Your task to perform on an android device: turn pop-ups on in chrome Image 0: 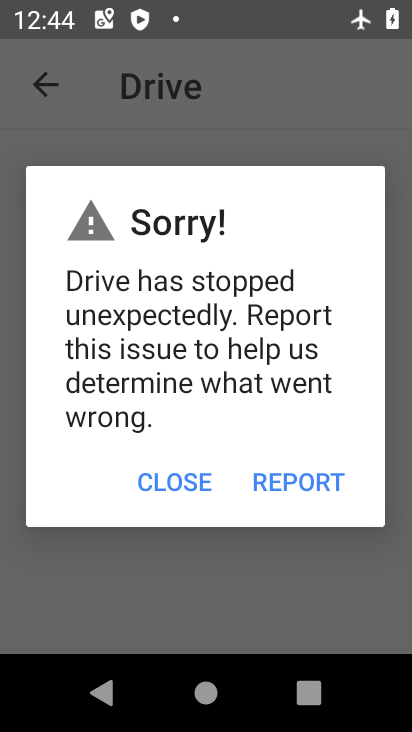
Step 0: press home button
Your task to perform on an android device: turn pop-ups on in chrome Image 1: 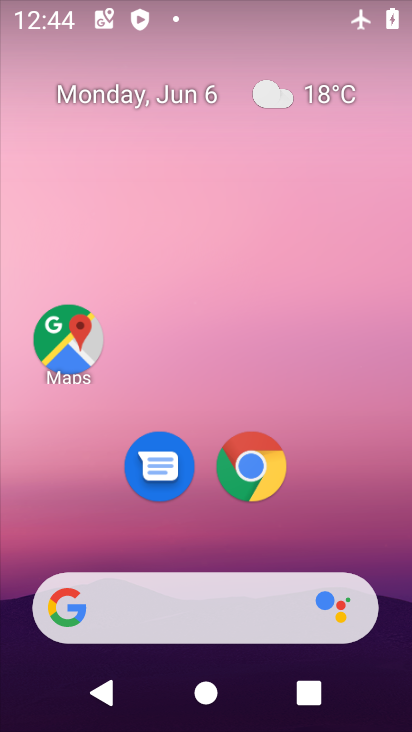
Step 1: drag from (369, 504) to (263, 15)
Your task to perform on an android device: turn pop-ups on in chrome Image 2: 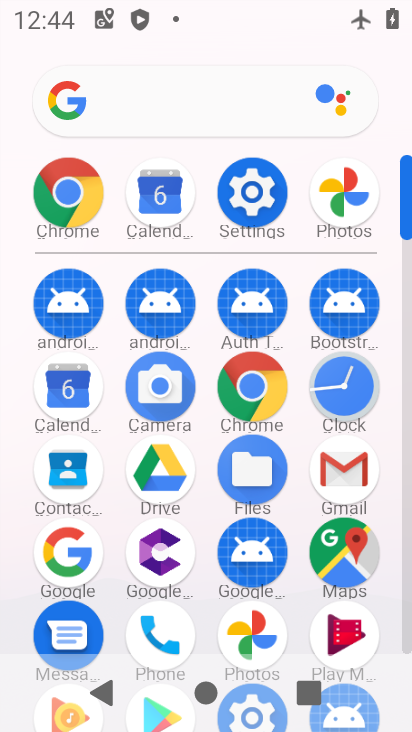
Step 2: click (253, 382)
Your task to perform on an android device: turn pop-ups on in chrome Image 3: 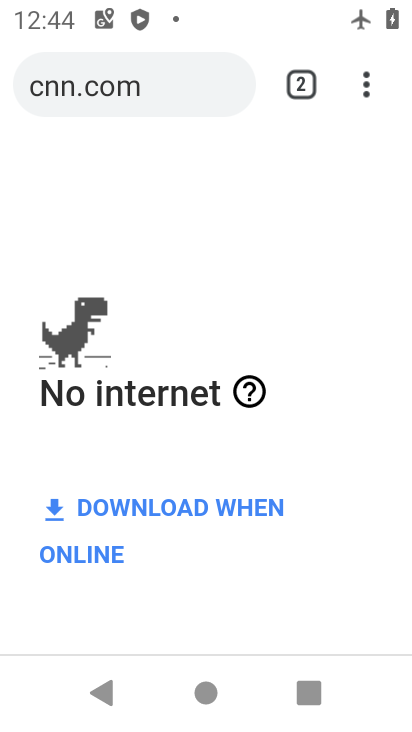
Step 3: drag from (368, 87) to (157, 498)
Your task to perform on an android device: turn pop-ups on in chrome Image 4: 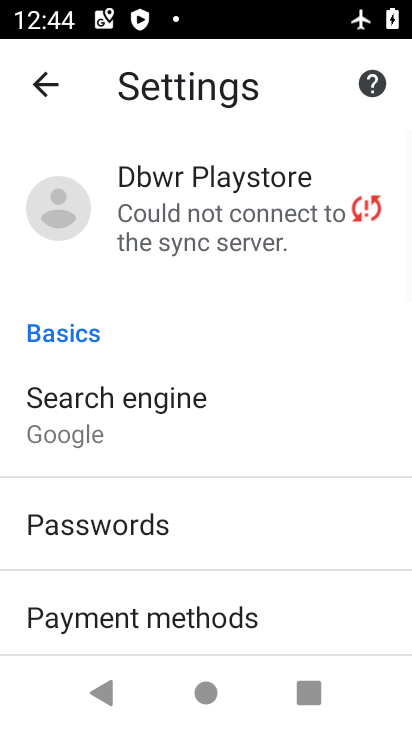
Step 4: drag from (214, 529) to (225, 177)
Your task to perform on an android device: turn pop-ups on in chrome Image 5: 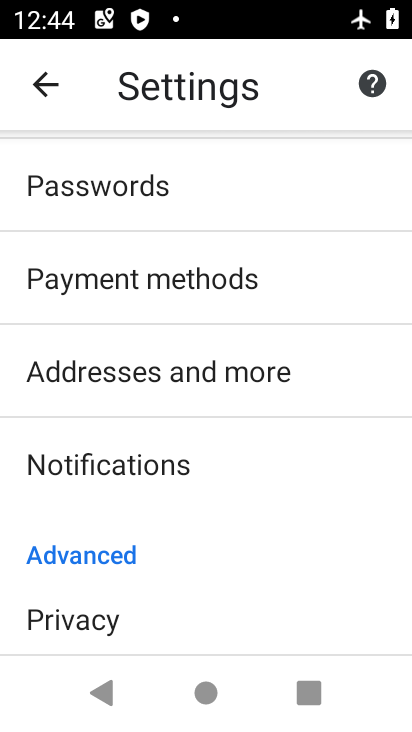
Step 5: drag from (229, 537) to (255, 173)
Your task to perform on an android device: turn pop-ups on in chrome Image 6: 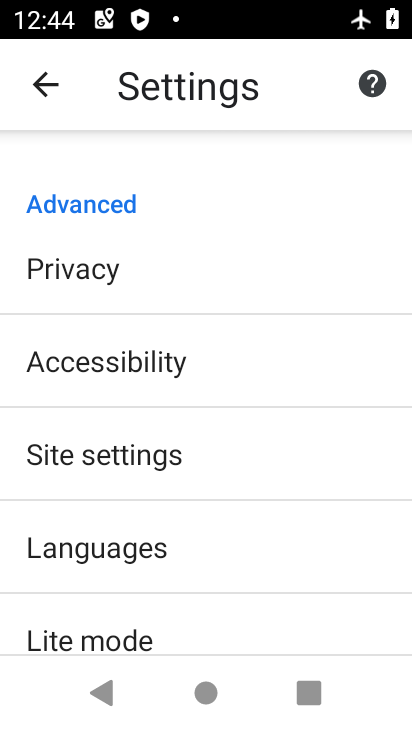
Step 6: click (159, 456)
Your task to perform on an android device: turn pop-ups on in chrome Image 7: 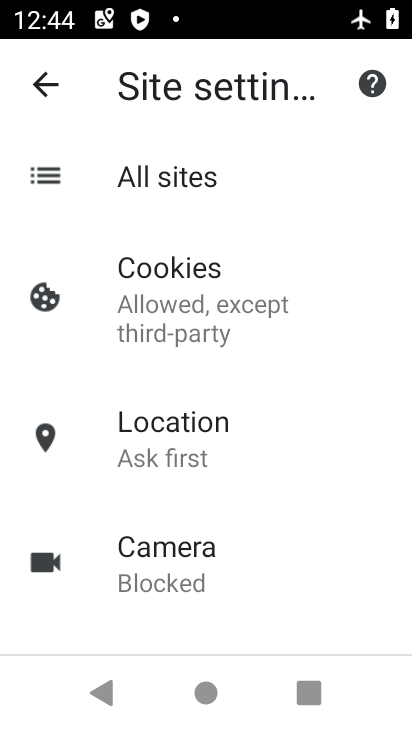
Step 7: drag from (253, 543) to (250, 218)
Your task to perform on an android device: turn pop-ups on in chrome Image 8: 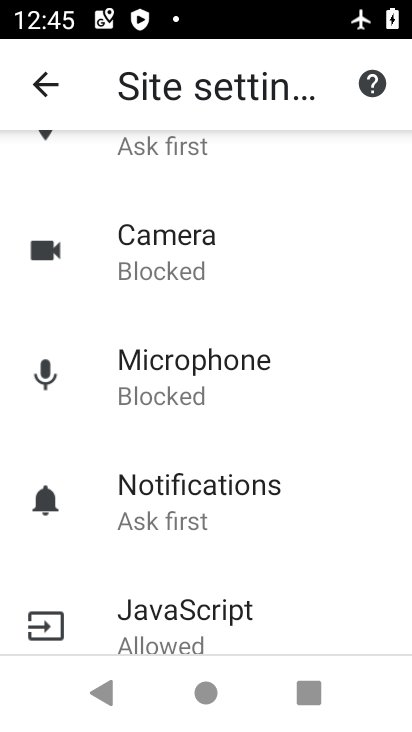
Step 8: drag from (271, 550) to (285, 176)
Your task to perform on an android device: turn pop-ups on in chrome Image 9: 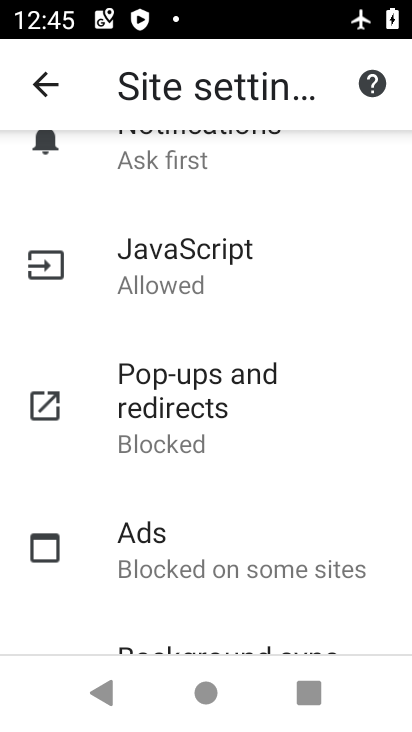
Step 9: click (176, 379)
Your task to perform on an android device: turn pop-ups on in chrome Image 10: 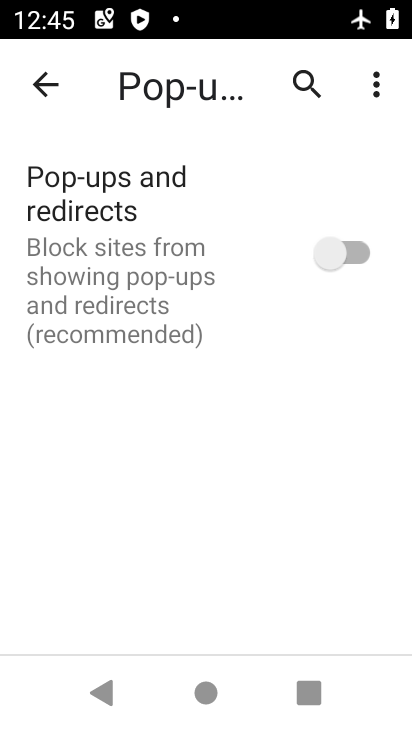
Step 10: click (327, 249)
Your task to perform on an android device: turn pop-ups on in chrome Image 11: 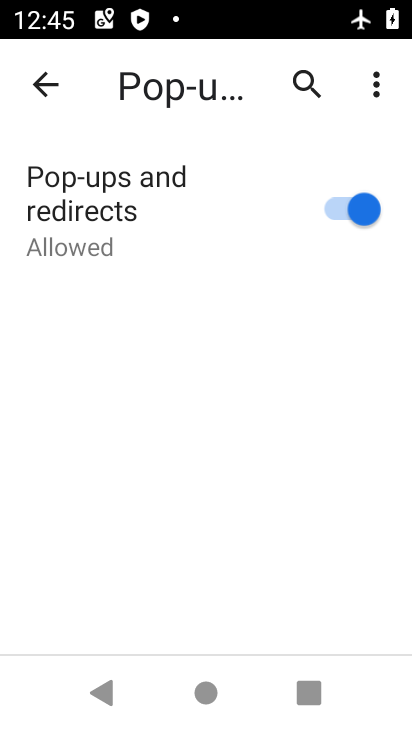
Step 11: task complete